Your task to perform on an android device: change timer sound Image 0: 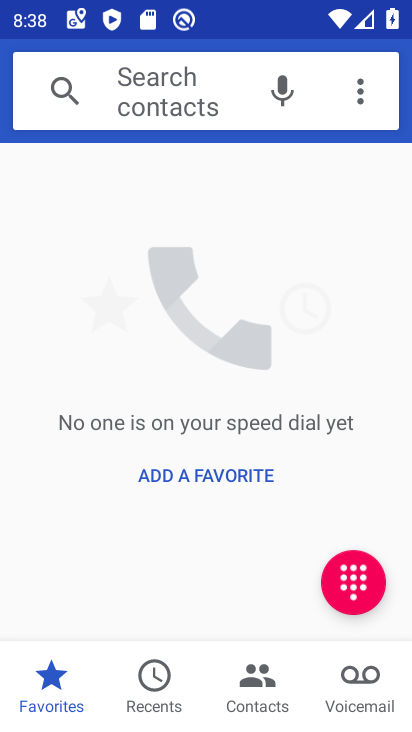
Step 0: press home button
Your task to perform on an android device: change timer sound Image 1: 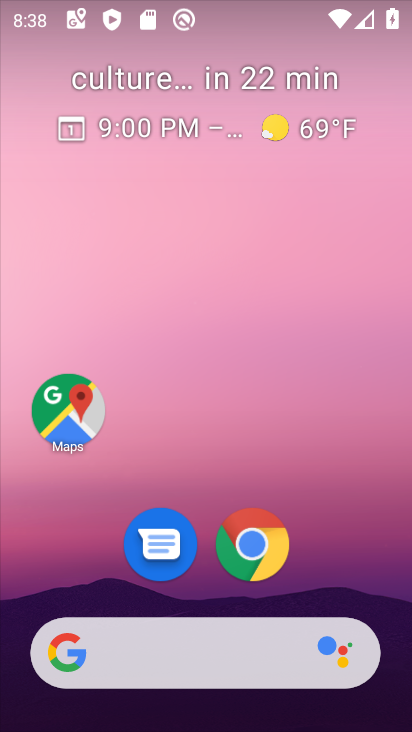
Step 1: drag from (226, 491) to (242, 262)
Your task to perform on an android device: change timer sound Image 2: 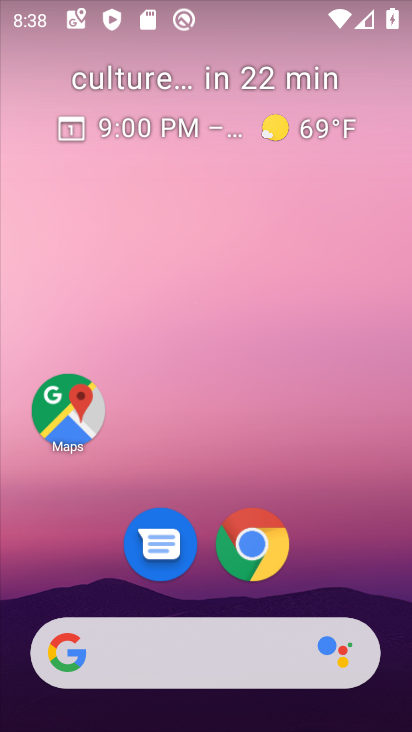
Step 2: drag from (197, 610) to (197, 202)
Your task to perform on an android device: change timer sound Image 3: 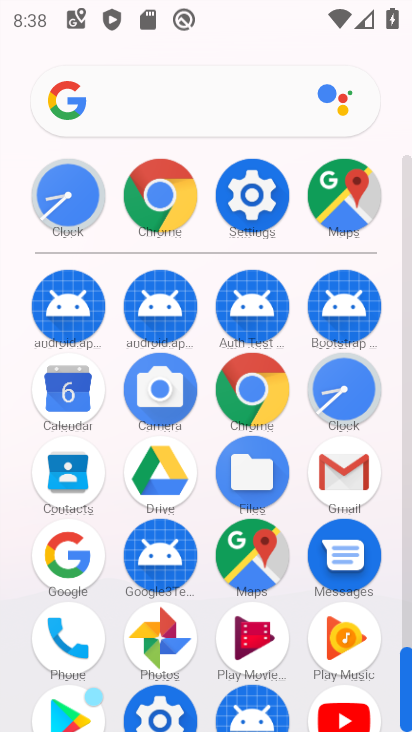
Step 3: click (336, 383)
Your task to perform on an android device: change timer sound Image 4: 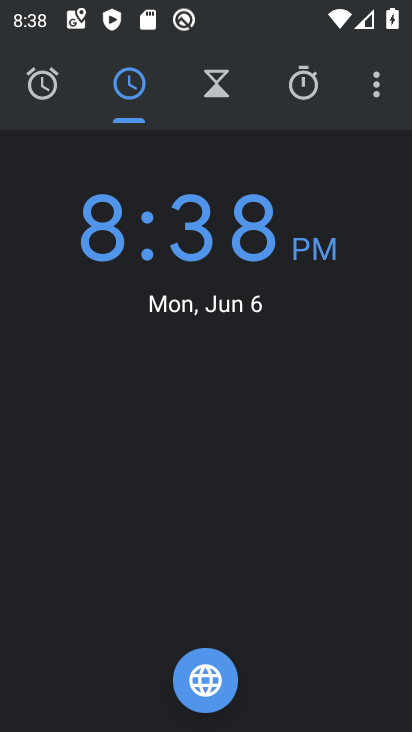
Step 4: click (377, 84)
Your task to perform on an android device: change timer sound Image 5: 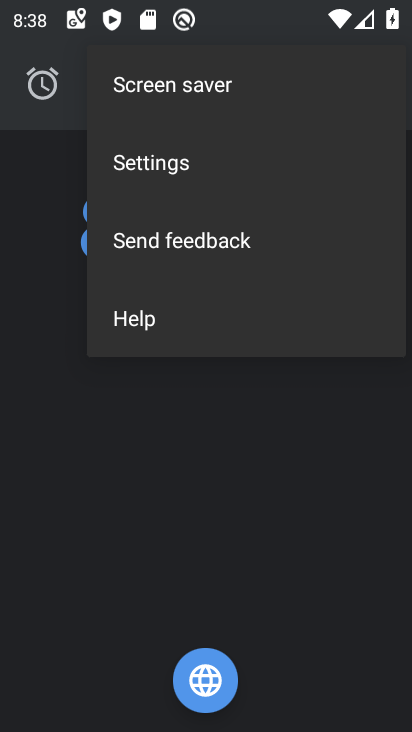
Step 5: click (195, 168)
Your task to perform on an android device: change timer sound Image 6: 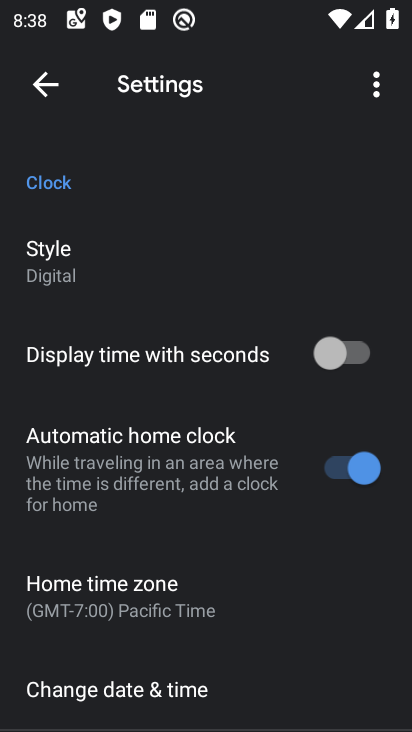
Step 6: drag from (168, 615) to (186, 153)
Your task to perform on an android device: change timer sound Image 7: 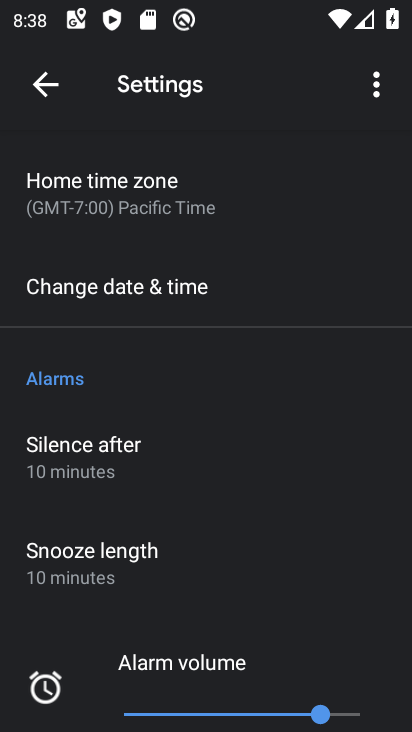
Step 7: drag from (151, 600) to (194, 192)
Your task to perform on an android device: change timer sound Image 8: 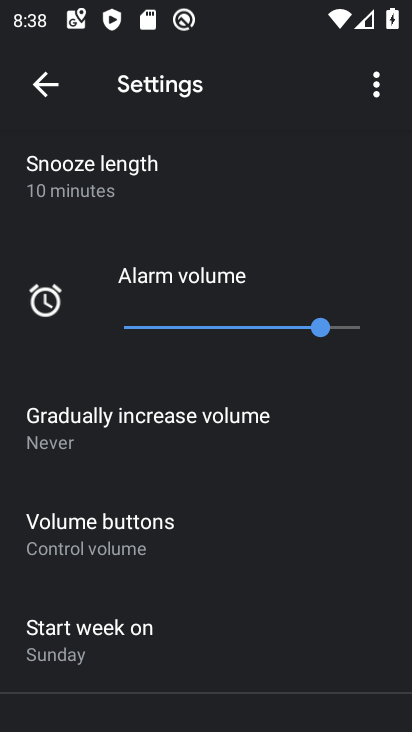
Step 8: drag from (128, 642) to (198, 263)
Your task to perform on an android device: change timer sound Image 9: 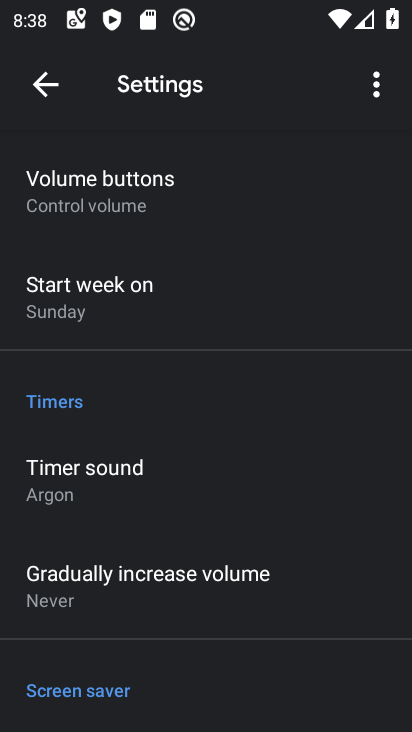
Step 9: click (79, 479)
Your task to perform on an android device: change timer sound Image 10: 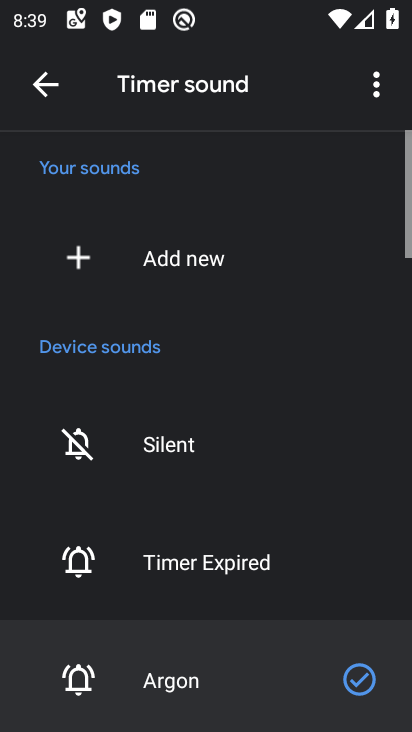
Step 10: click (205, 450)
Your task to perform on an android device: change timer sound Image 11: 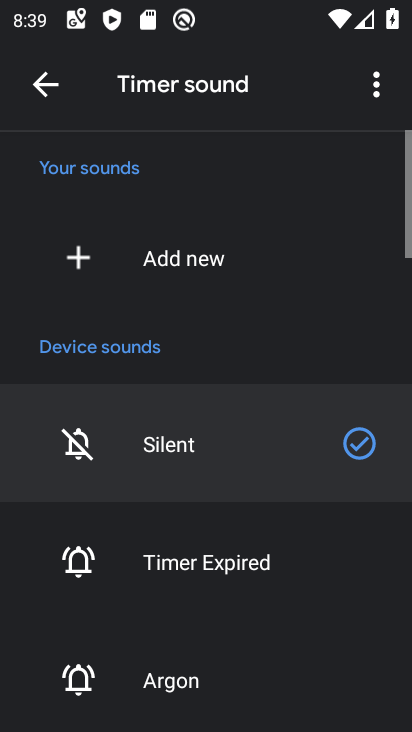
Step 11: task complete